Your task to perform on an android device: turn on bluetooth scan Image 0: 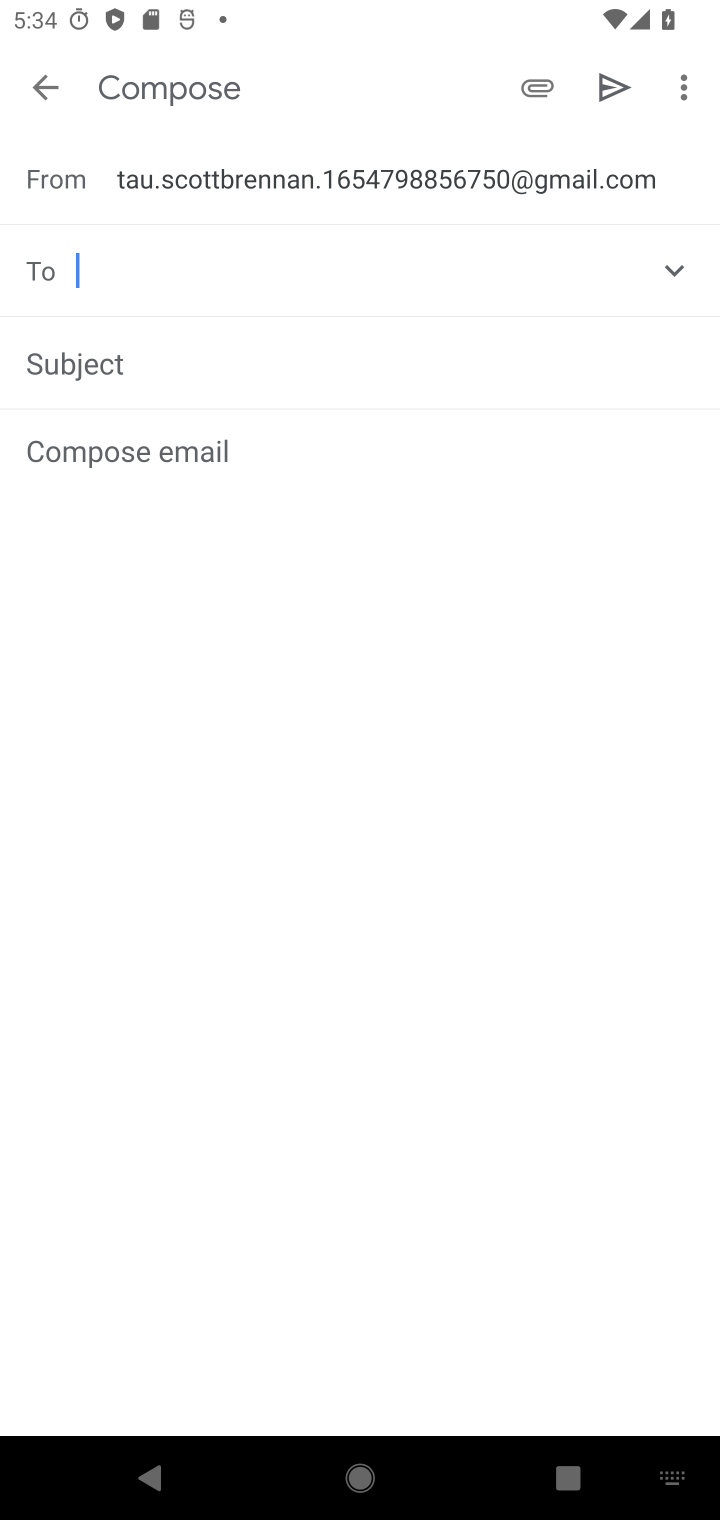
Step 0: press home button
Your task to perform on an android device: turn on bluetooth scan Image 1: 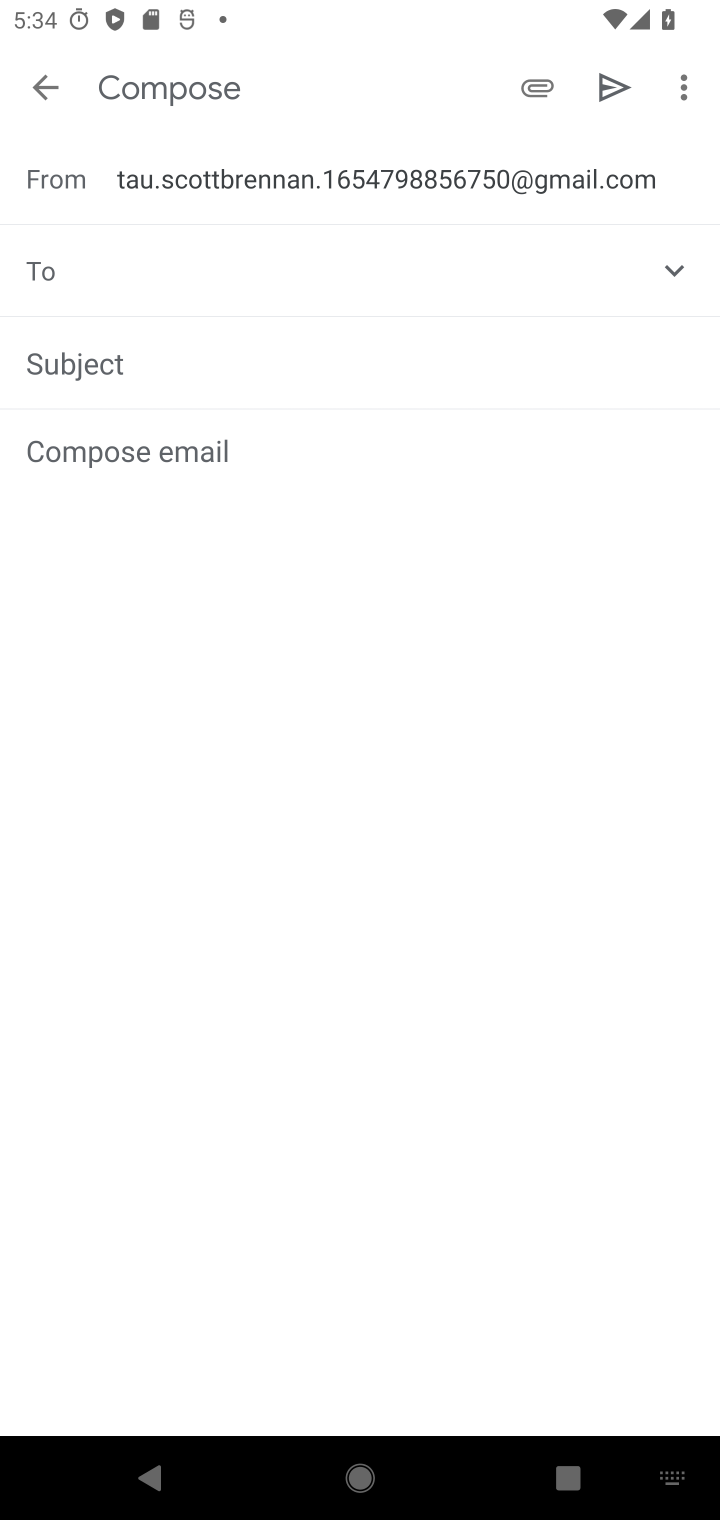
Step 1: press home button
Your task to perform on an android device: turn on bluetooth scan Image 2: 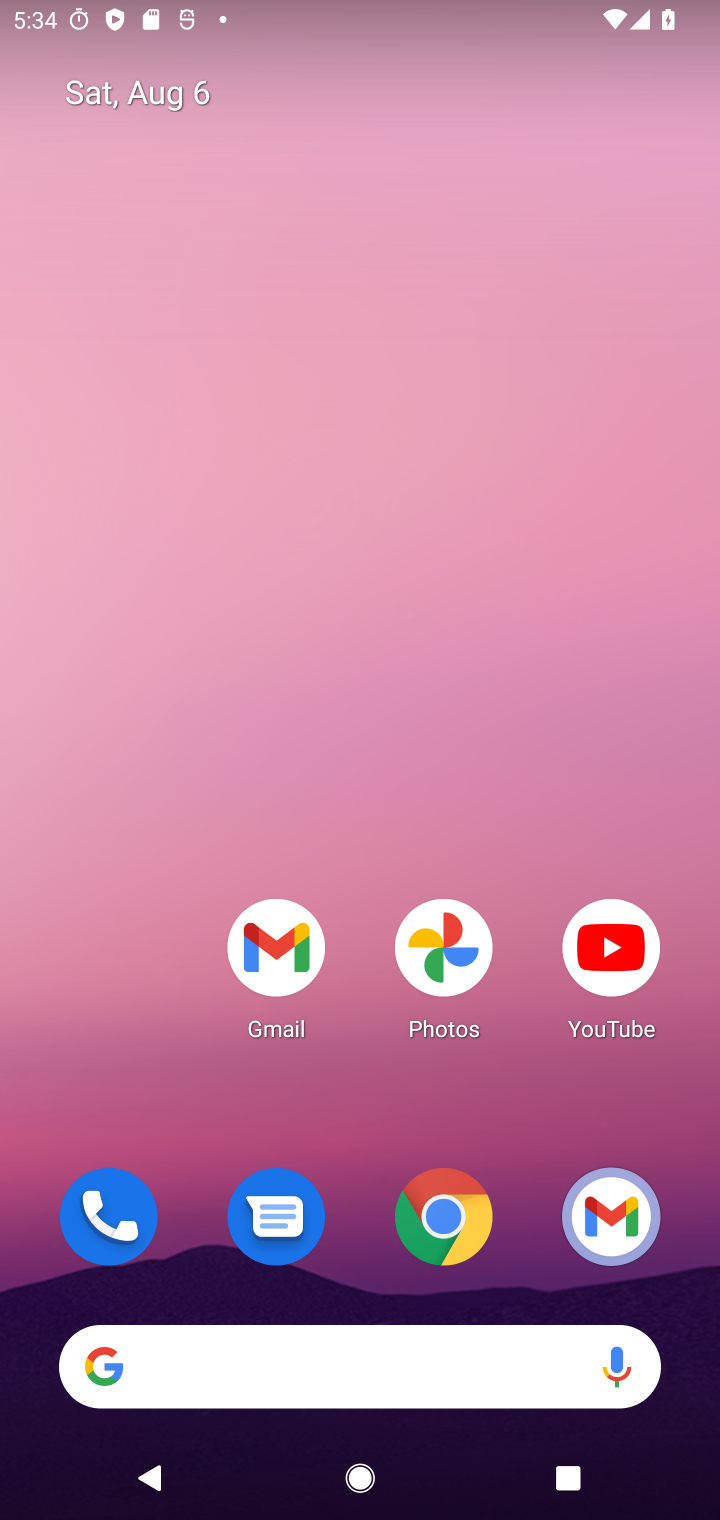
Step 2: drag from (392, 1091) to (462, 309)
Your task to perform on an android device: turn on bluetooth scan Image 3: 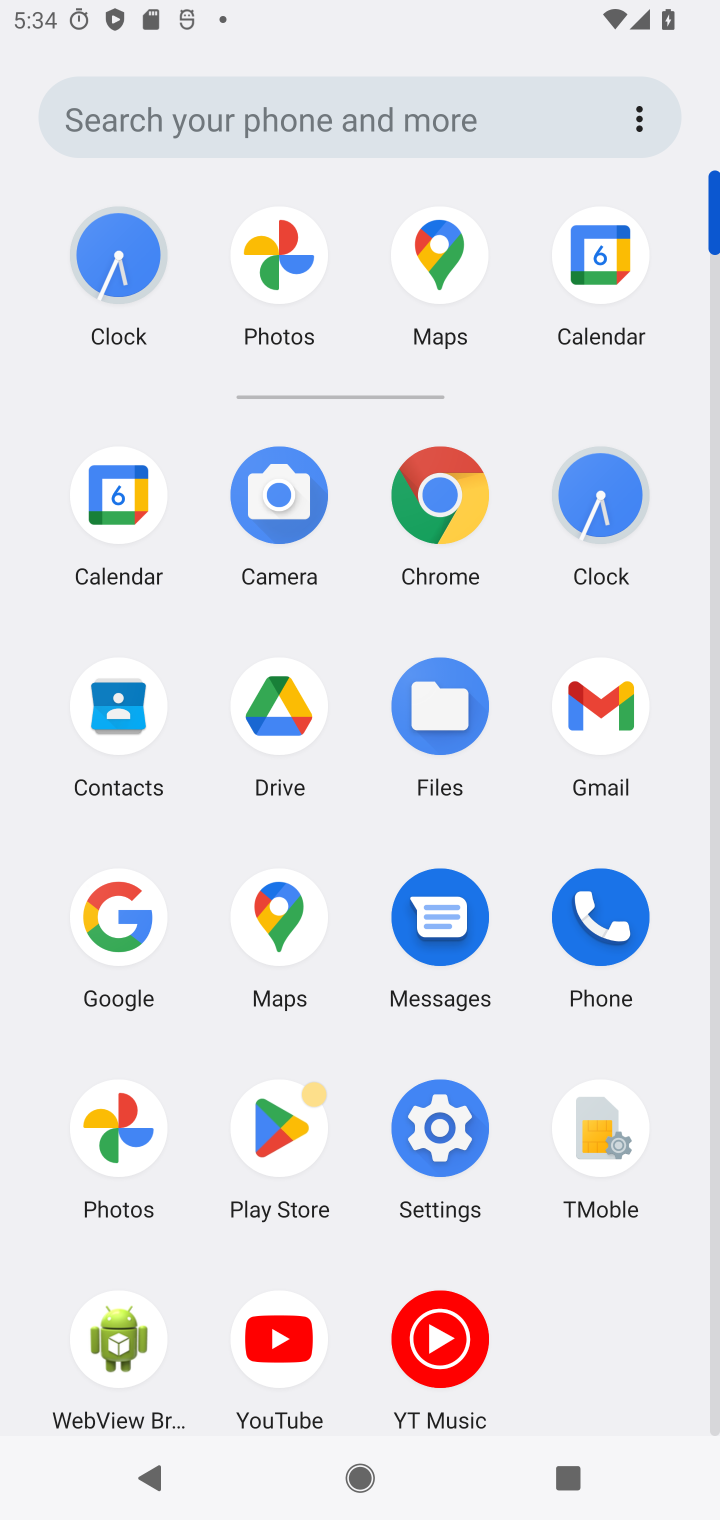
Step 3: click (445, 1119)
Your task to perform on an android device: turn on bluetooth scan Image 4: 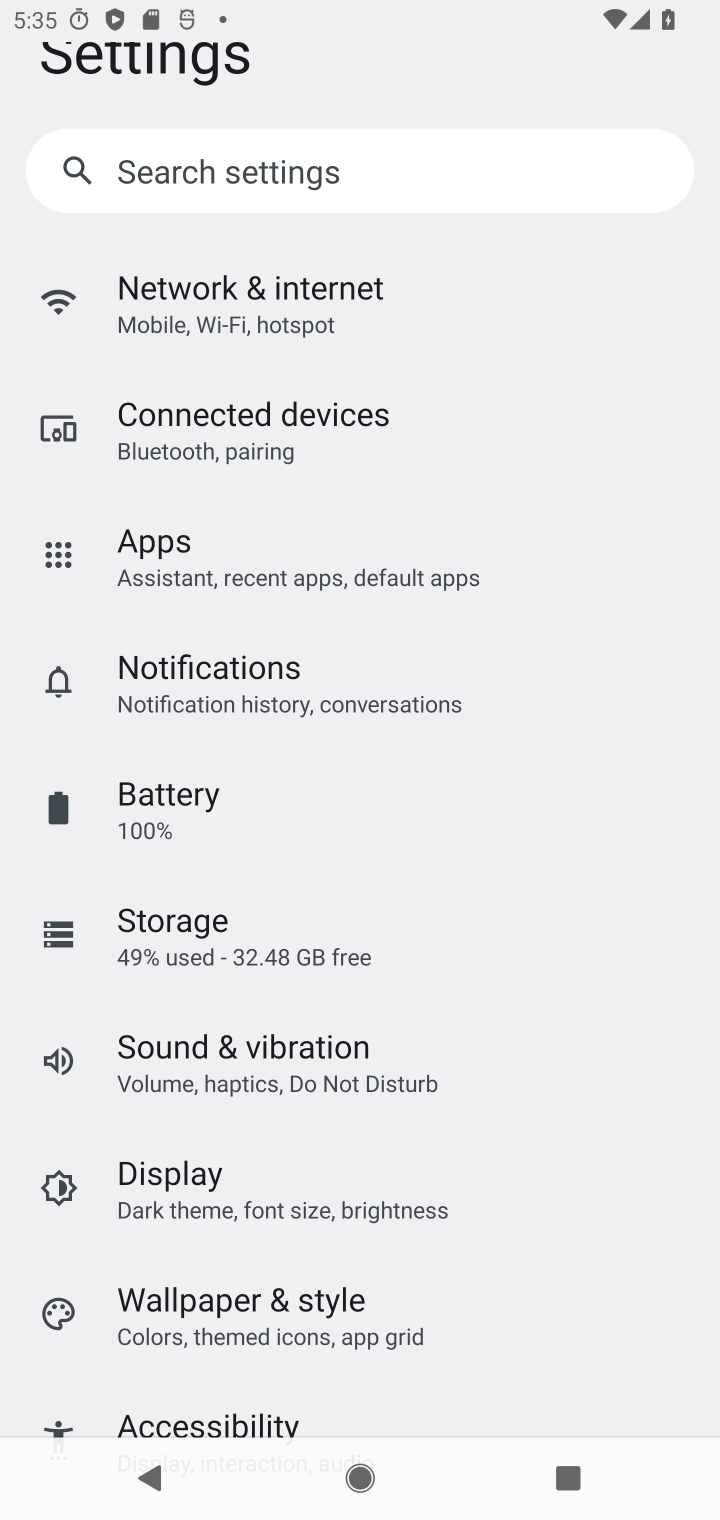
Step 4: drag from (380, 1313) to (407, 662)
Your task to perform on an android device: turn on bluetooth scan Image 5: 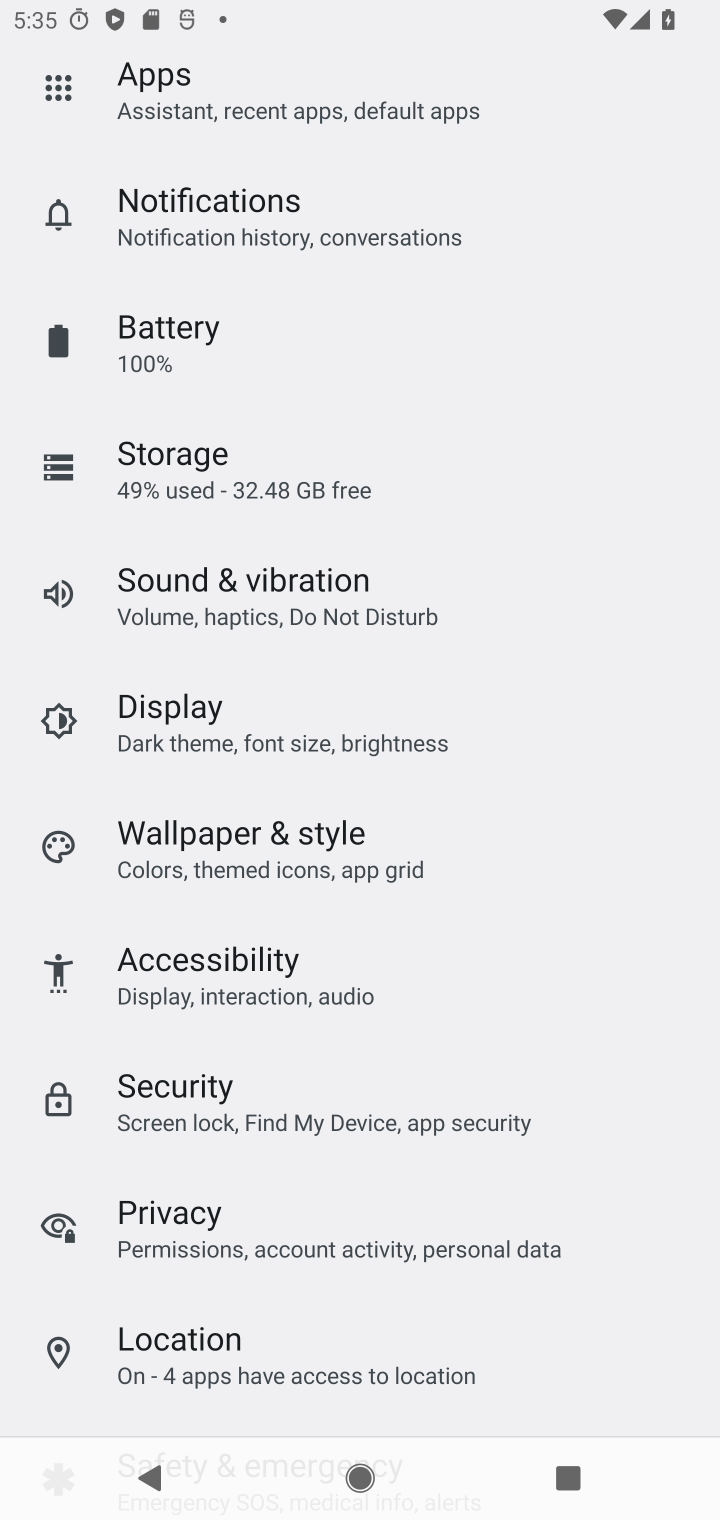
Step 5: click (282, 1369)
Your task to perform on an android device: turn on bluetooth scan Image 6: 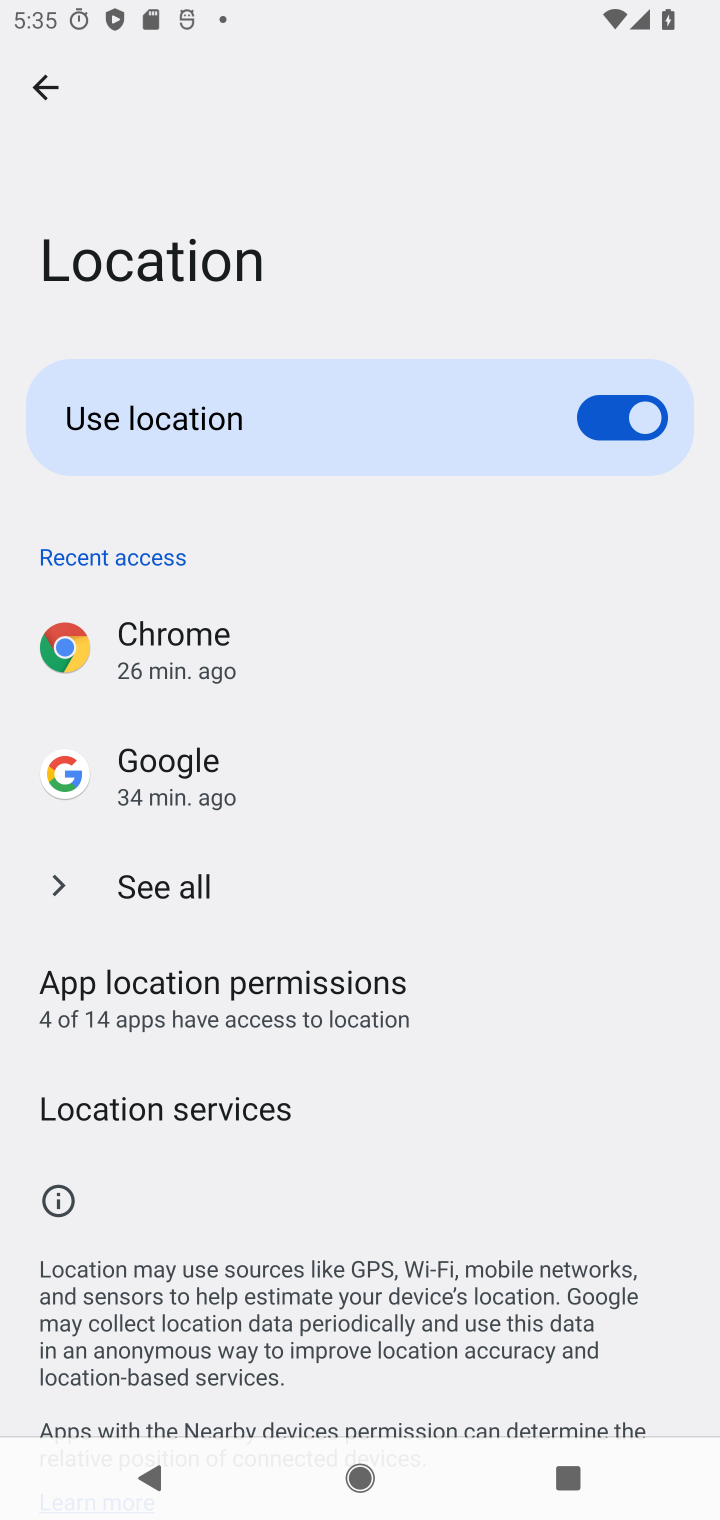
Step 6: drag from (493, 1257) to (474, 536)
Your task to perform on an android device: turn on bluetooth scan Image 7: 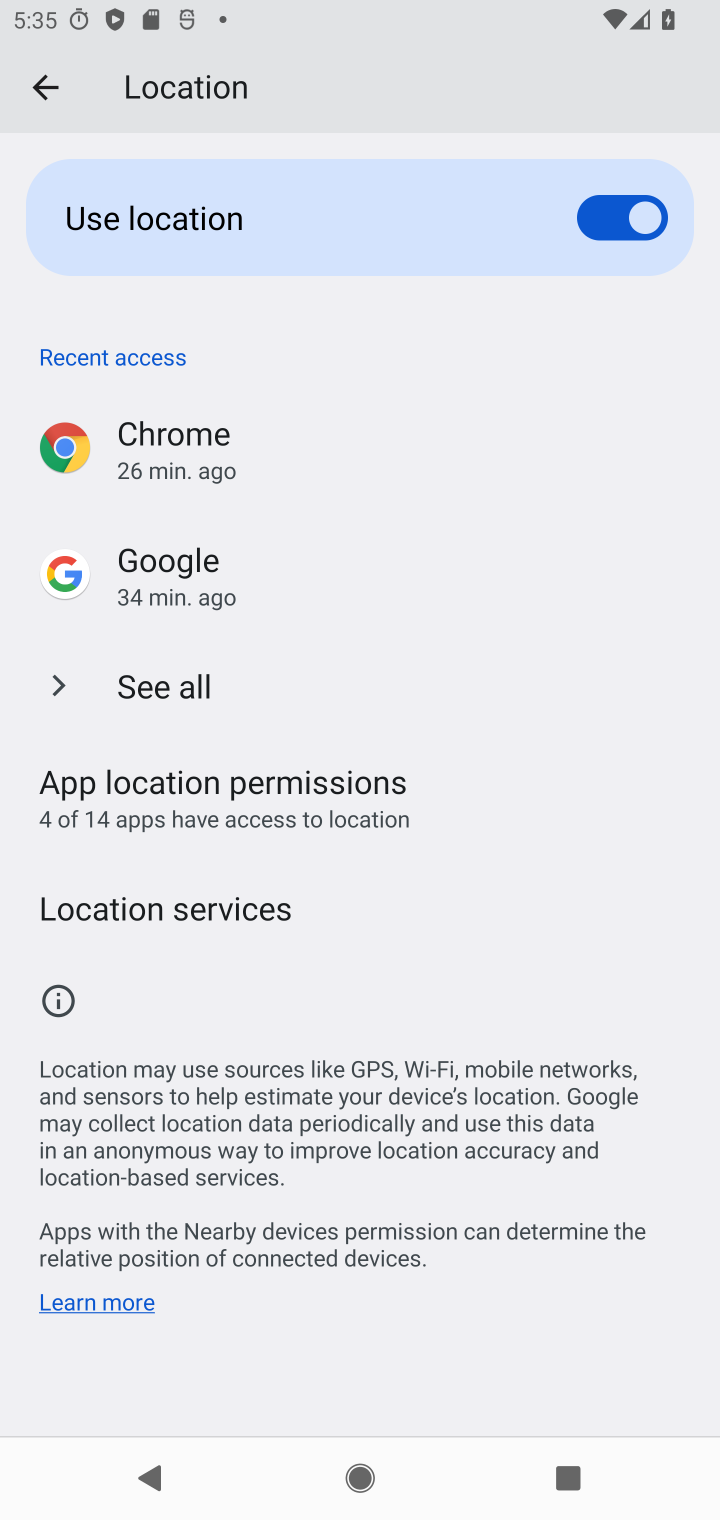
Step 7: click (207, 902)
Your task to perform on an android device: turn on bluetooth scan Image 8: 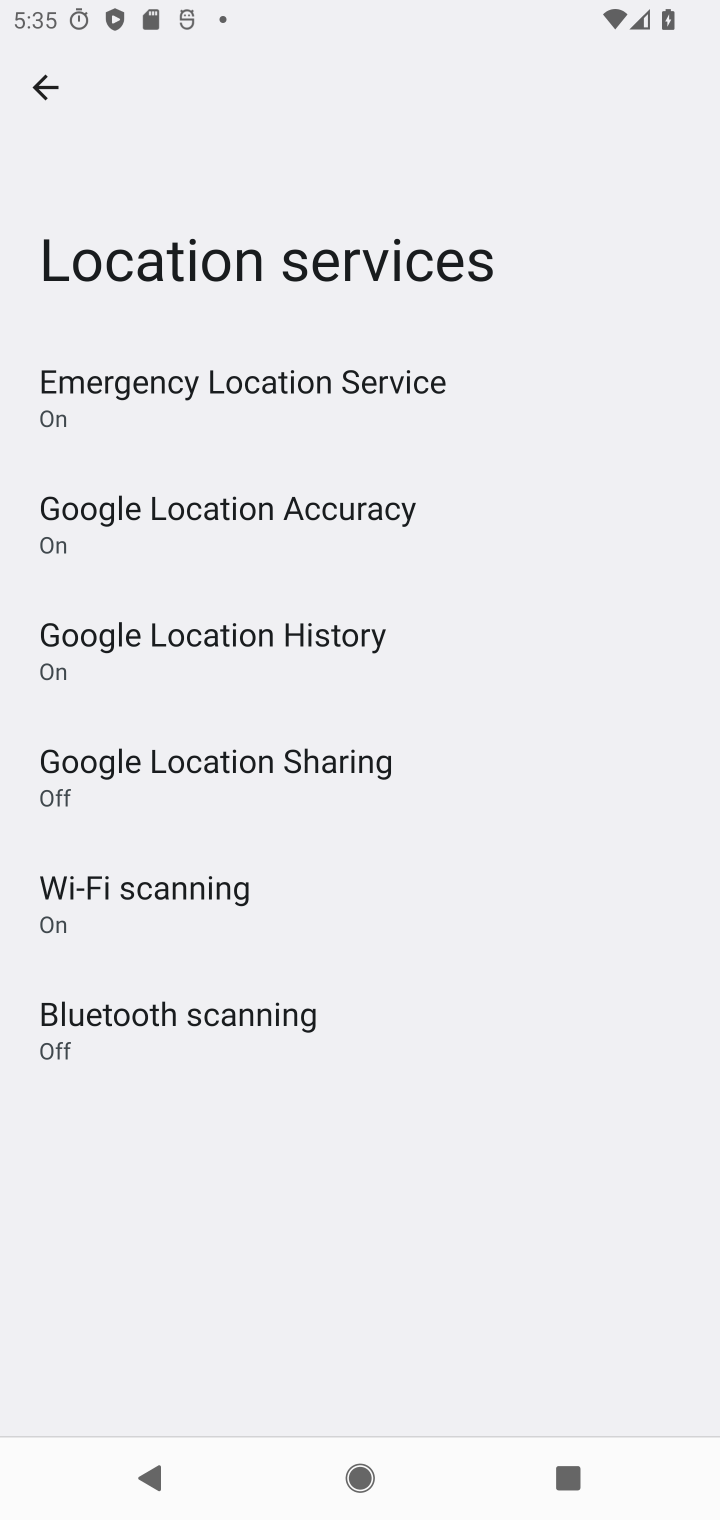
Step 8: click (236, 1022)
Your task to perform on an android device: turn on bluetooth scan Image 9: 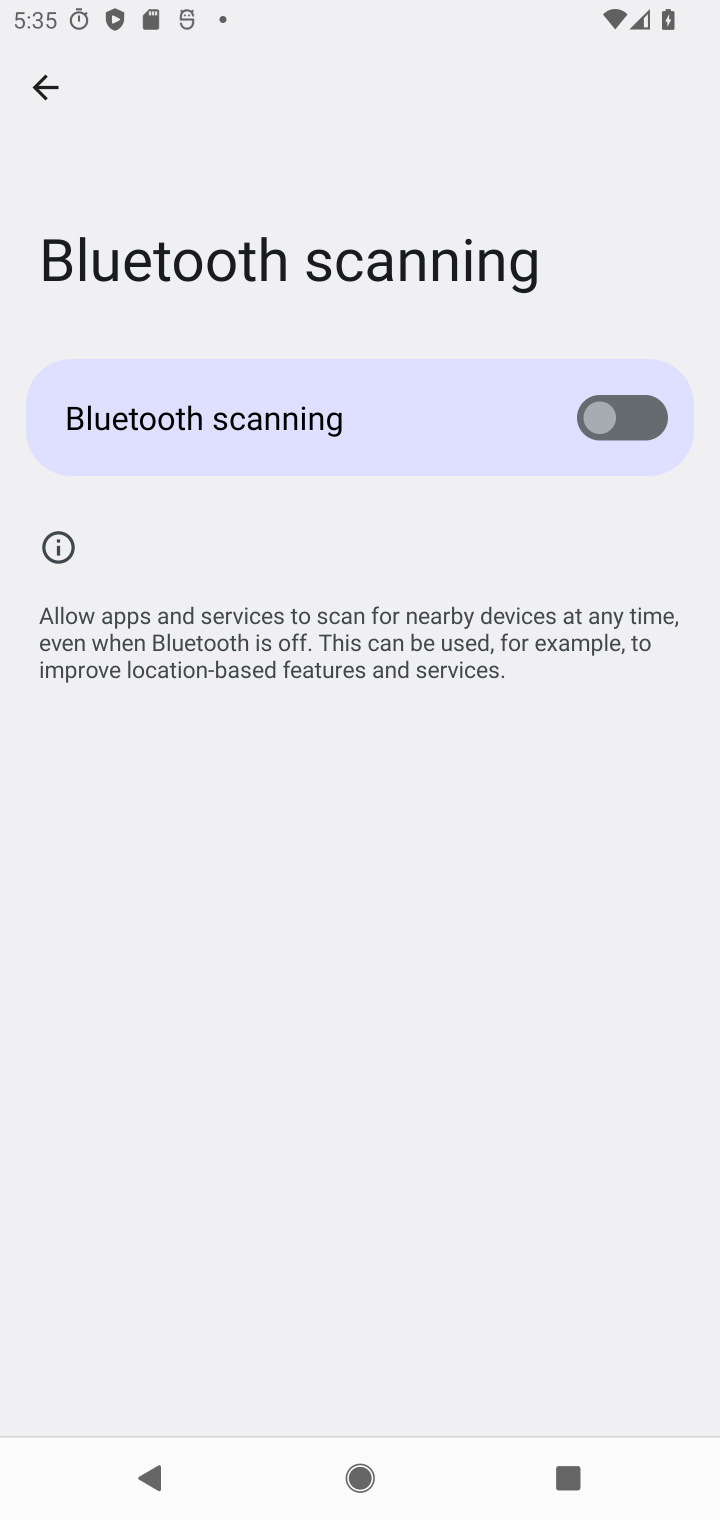
Step 9: click (659, 420)
Your task to perform on an android device: turn on bluetooth scan Image 10: 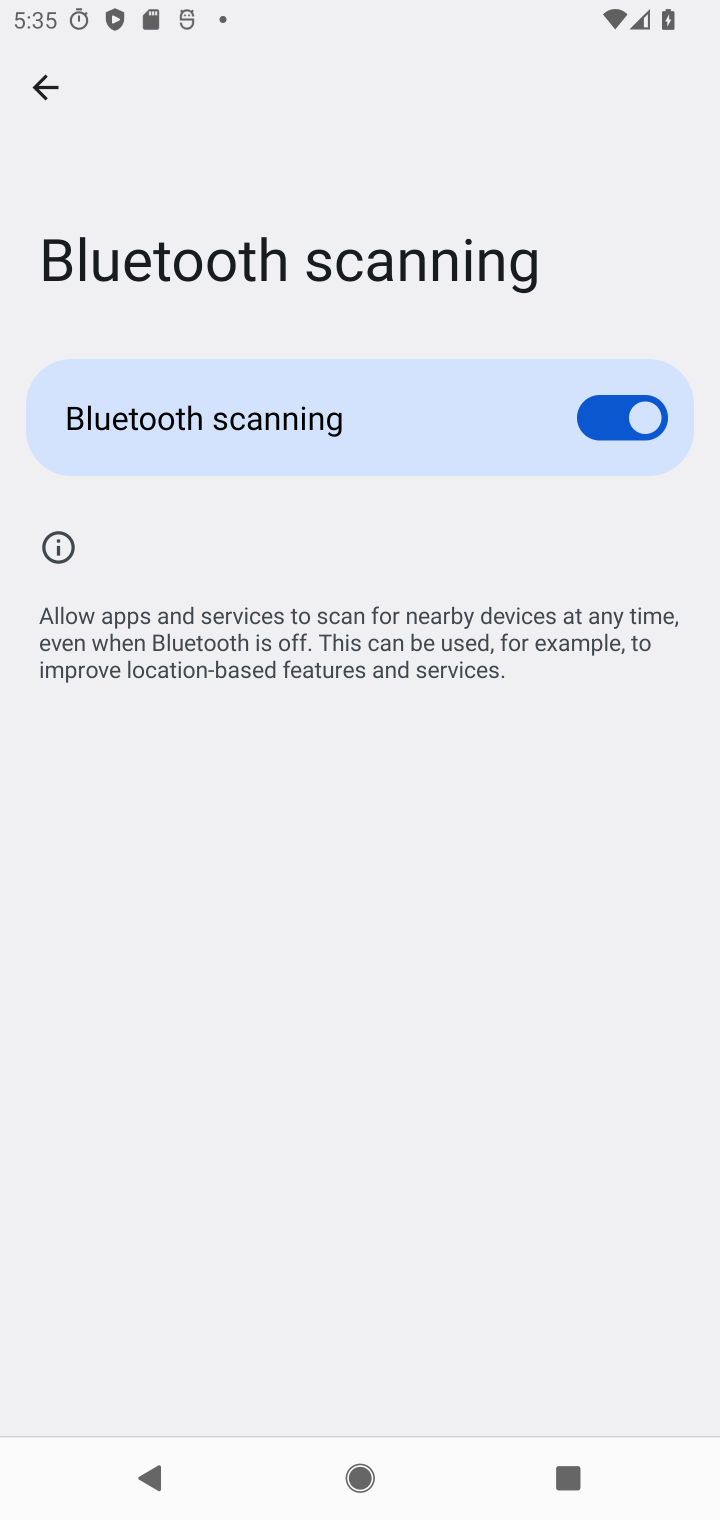
Step 10: task complete